Your task to perform on an android device: turn on showing notifications on the lock screen Image 0: 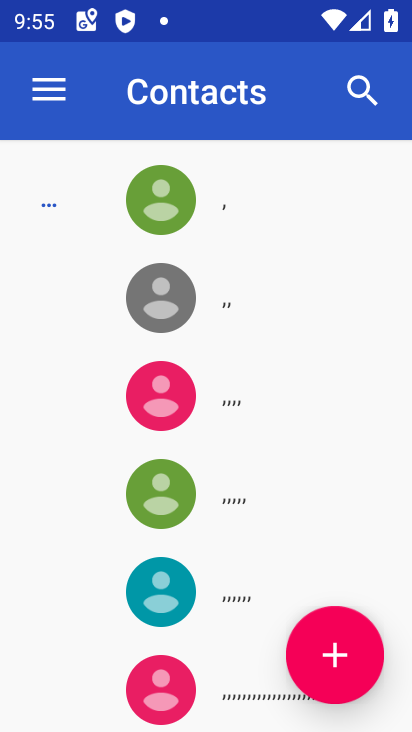
Step 0: press home button
Your task to perform on an android device: turn on showing notifications on the lock screen Image 1: 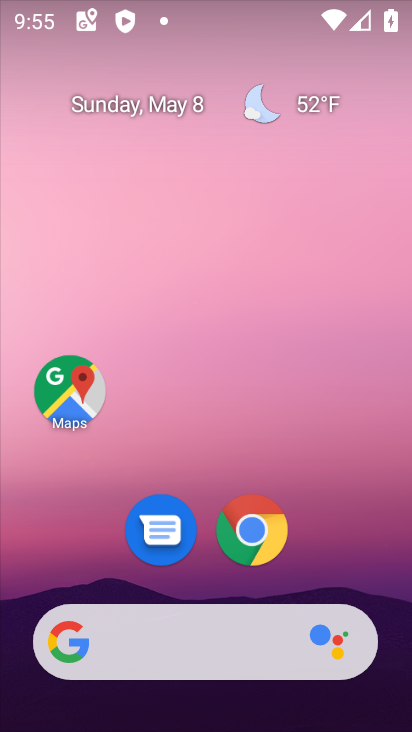
Step 1: drag from (371, 552) to (341, 169)
Your task to perform on an android device: turn on showing notifications on the lock screen Image 2: 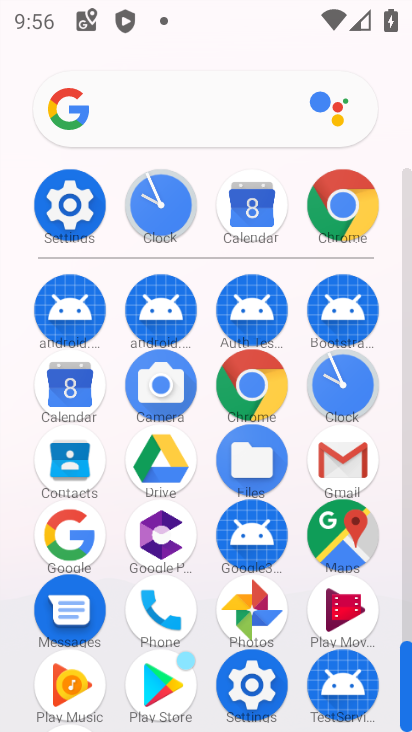
Step 2: click (245, 697)
Your task to perform on an android device: turn on showing notifications on the lock screen Image 3: 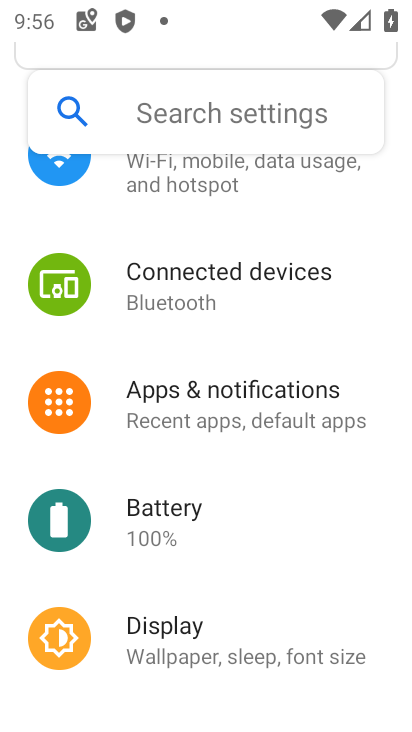
Step 3: click (263, 393)
Your task to perform on an android device: turn on showing notifications on the lock screen Image 4: 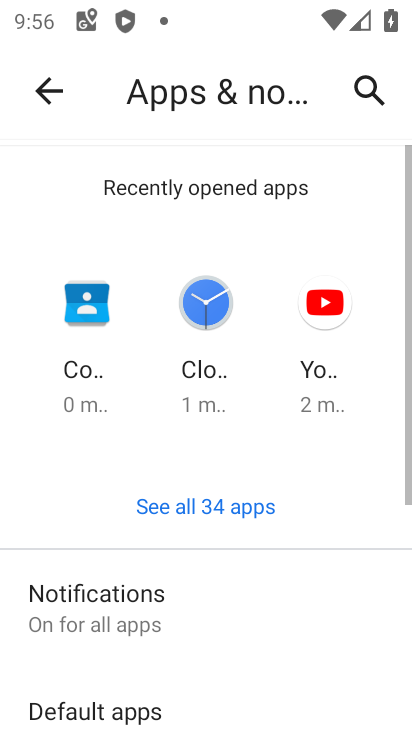
Step 4: drag from (273, 654) to (283, 252)
Your task to perform on an android device: turn on showing notifications on the lock screen Image 5: 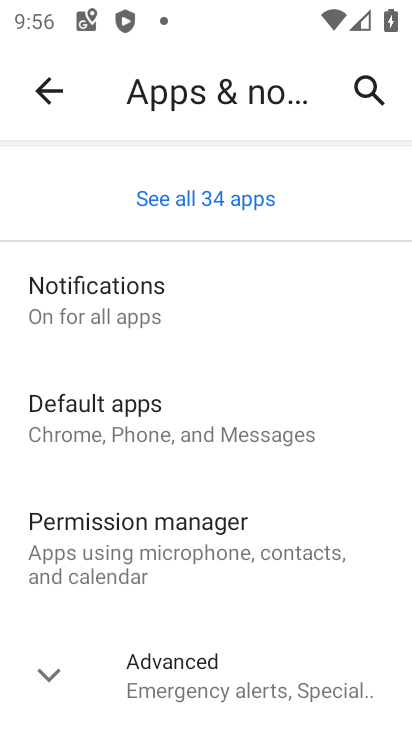
Step 5: click (201, 296)
Your task to perform on an android device: turn on showing notifications on the lock screen Image 6: 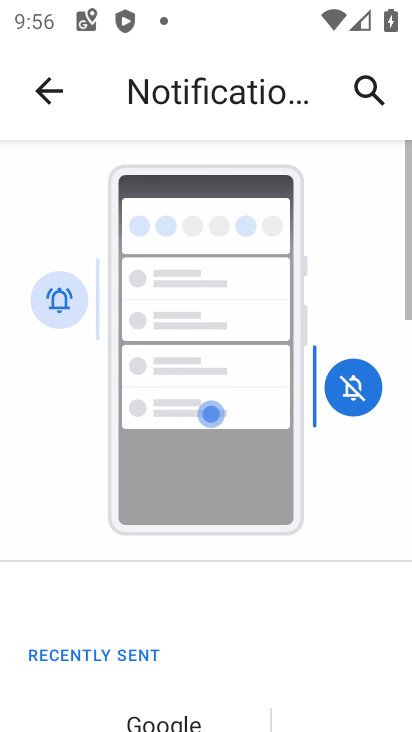
Step 6: drag from (217, 610) to (232, 178)
Your task to perform on an android device: turn on showing notifications on the lock screen Image 7: 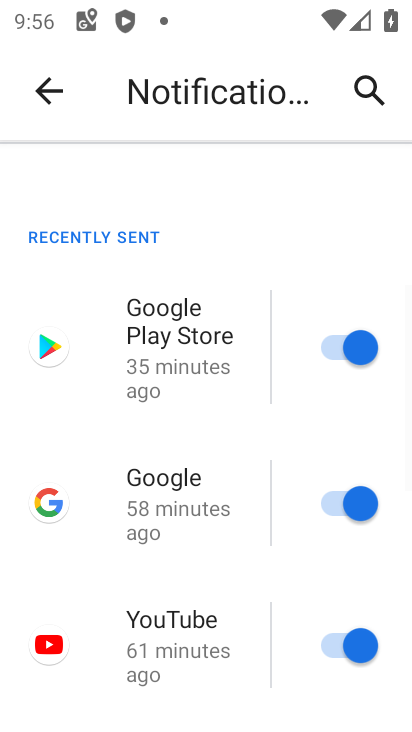
Step 7: drag from (214, 616) to (225, 246)
Your task to perform on an android device: turn on showing notifications on the lock screen Image 8: 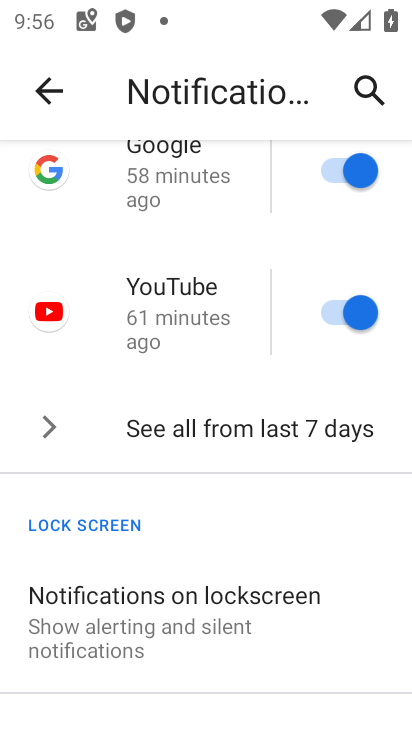
Step 8: click (172, 612)
Your task to perform on an android device: turn on showing notifications on the lock screen Image 9: 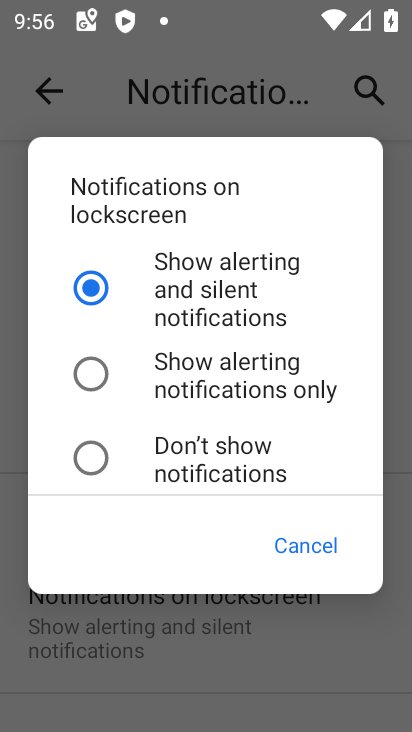
Step 9: task complete